Your task to perform on an android device: open chrome and create a bookmark for the current page Image 0: 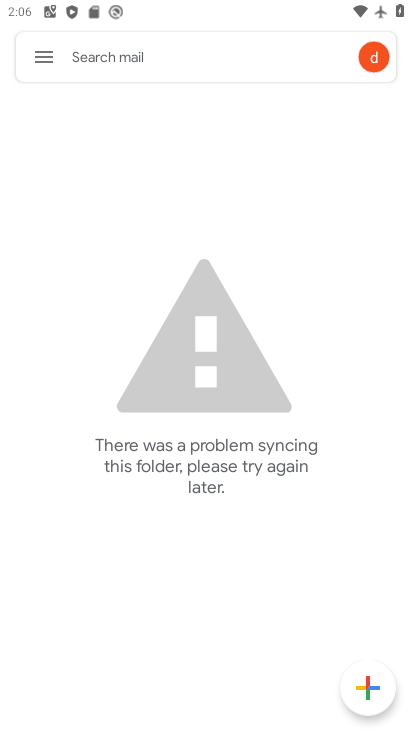
Step 0: press home button
Your task to perform on an android device: open chrome and create a bookmark for the current page Image 1: 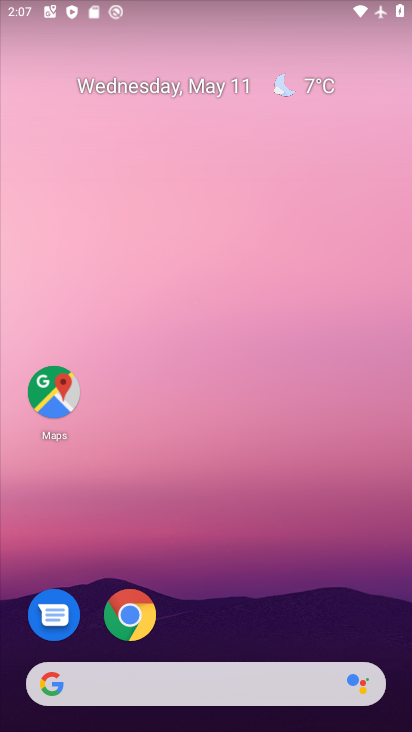
Step 1: click (129, 614)
Your task to perform on an android device: open chrome and create a bookmark for the current page Image 2: 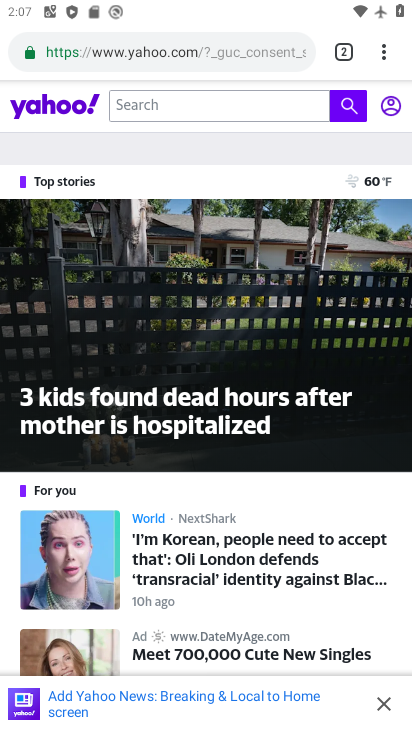
Step 2: task complete